Your task to perform on an android device: change the clock display to analog Image 0: 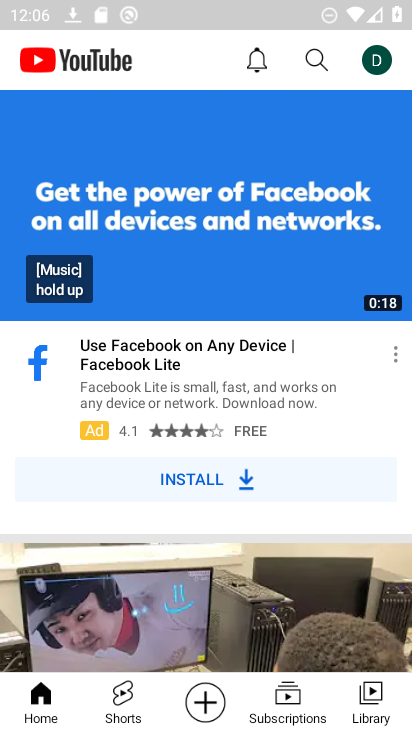
Step 0: press home button
Your task to perform on an android device: change the clock display to analog Image 1: 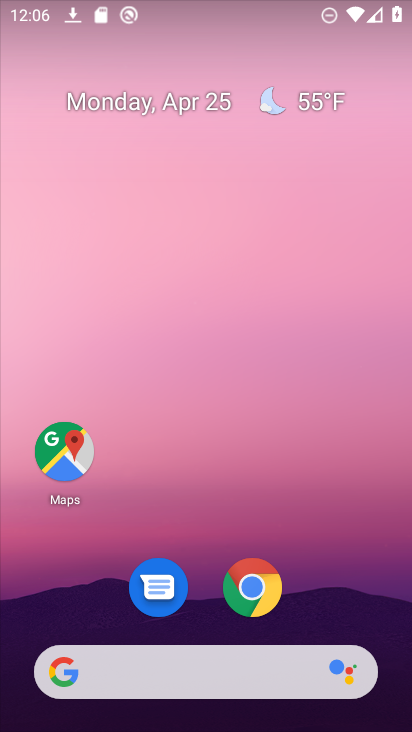
Step 1: drag from (323, 589) to (314, 134)
Your task to perform on an android device: change the clock display to analog Image 2: 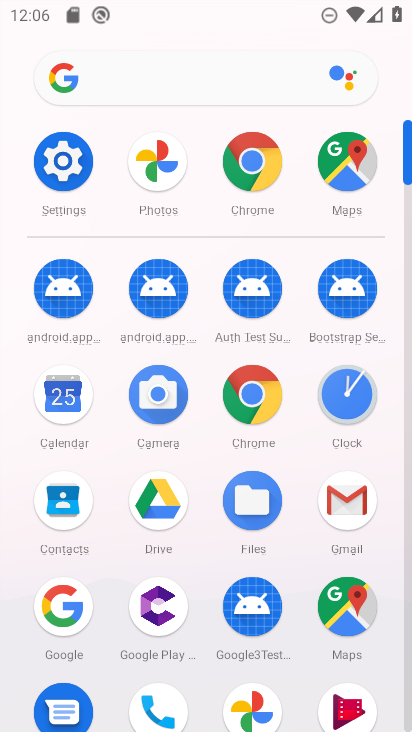
Step 2: click (352, 397)
Your task to perform on an android device: change the clock display to analog Image 3: 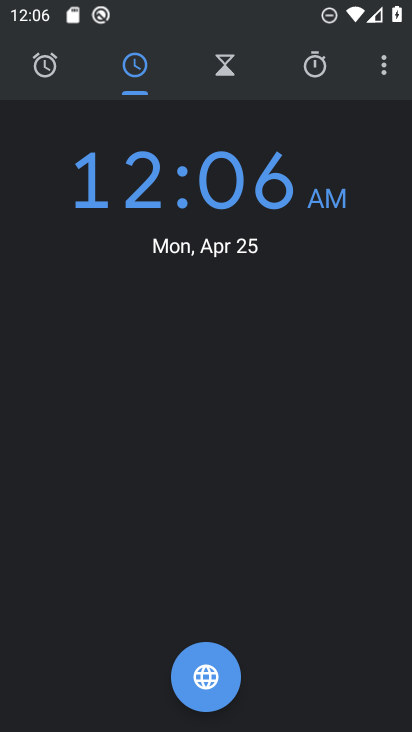
Step 3: click (378, 61)
Your task to perform on an android device: change the clock display to analog Image 4: 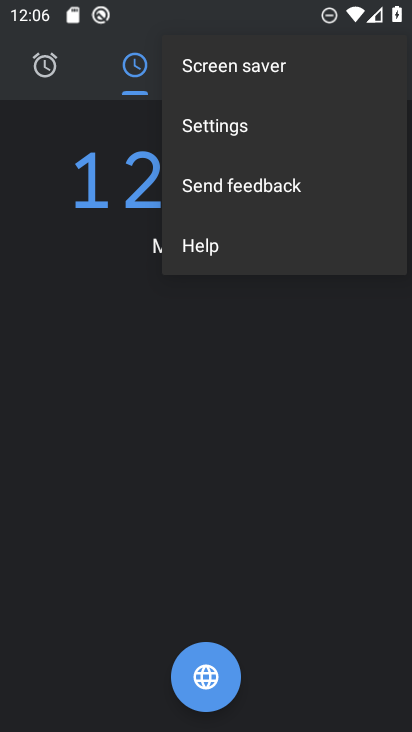
Step 4: click (249, 125)
Your task to perform on an android device: change the clock display to analog Image 5: 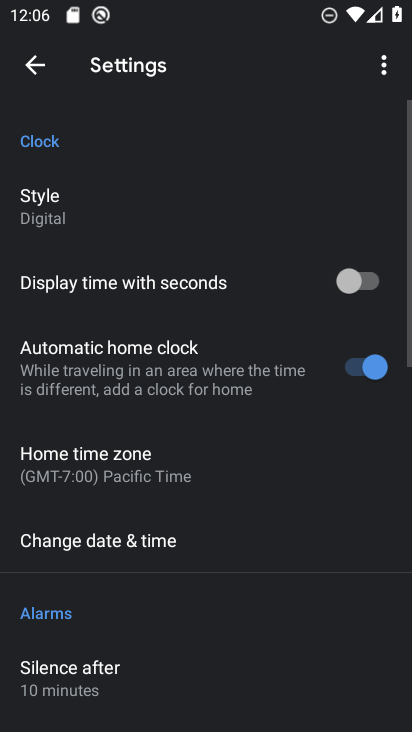
Step 5: click (85, 212)
Your task to perform on an android device: change the clock display to analog Image 6: 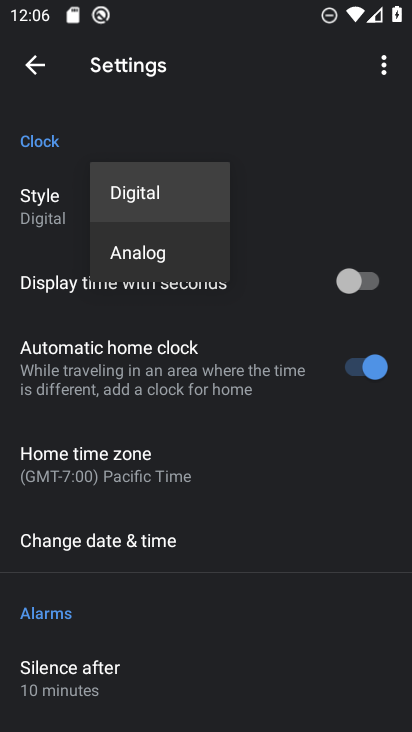
Step 6: click (119, 257)
Your task to perform on an android device: change the clock display to analog Image 7: 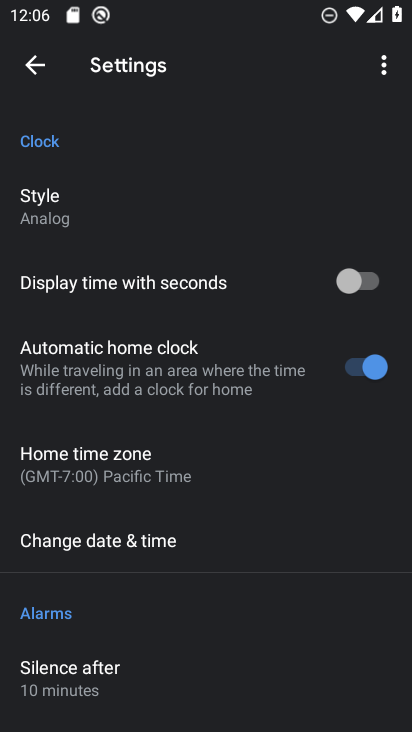
Step 7: task complete